Your task to perform on an android device: What's on my calendar today? Image 0: 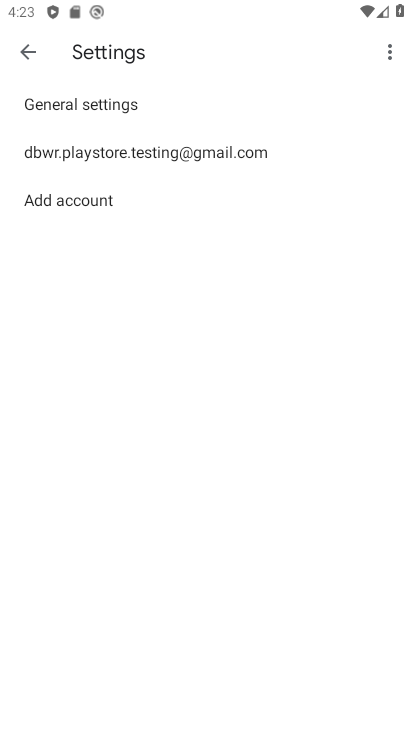
Step 0: press home button
Your task to perform on an android device: What's on my calendar today? Image 1: 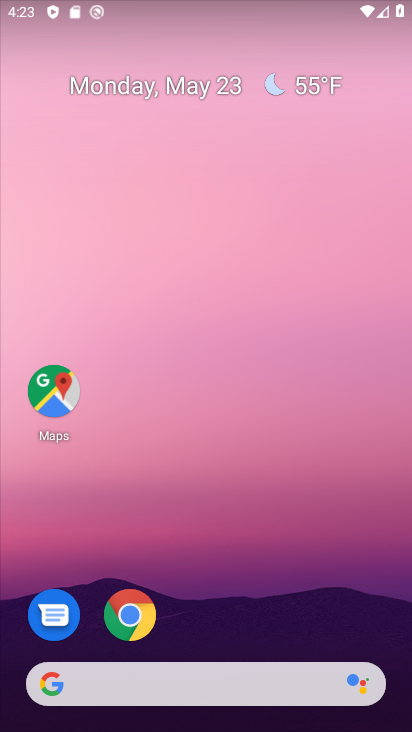
Step 1: drag from (348, 630) to (333, 106)
Your task to perform on an android device: What's on my calendar today? Image 2: 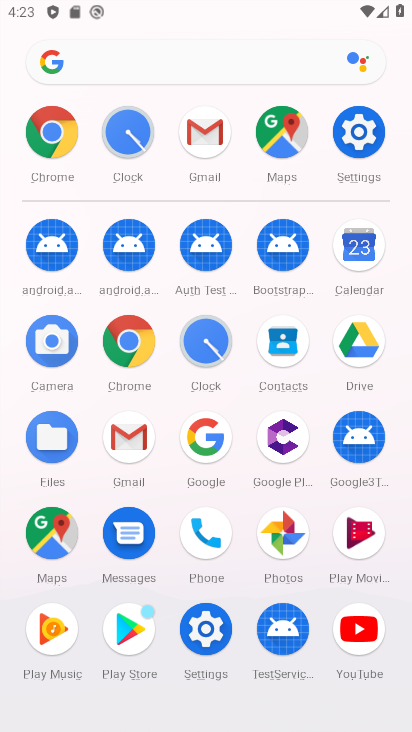
Step 2: click (361, 246)
Your task to perform on an android device: What's on my calendar today? Image 3: 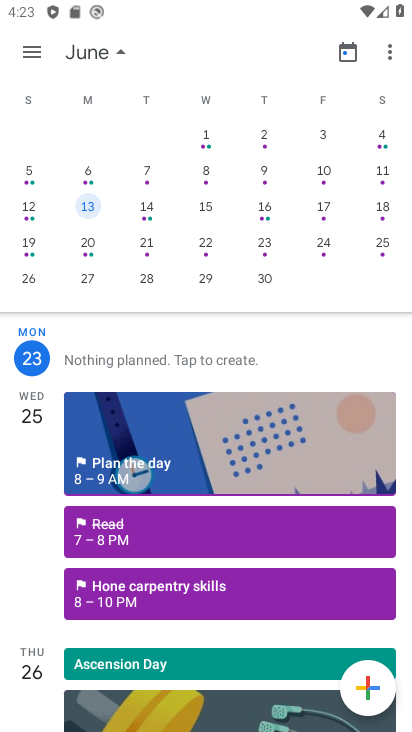
Step 3: drag from (39, 128) to (410, 151)
Your task to perform on an android device: What's on my calendar today? Image 4: 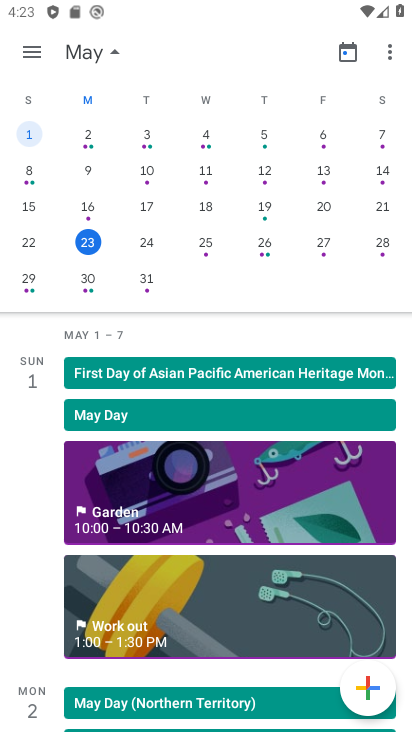
Step 4: click (87, 243)
Your task to perform on an android device: What's on my calendar today? Image 5: 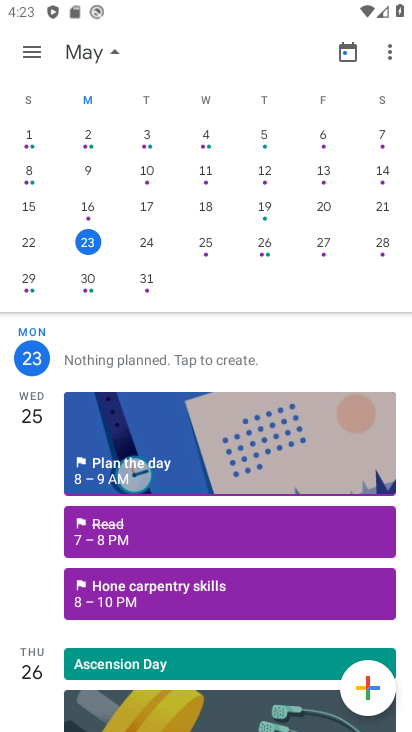
Step 5: task complete